Your task to perform on an android device: toggle improve location accuracy Image 0: 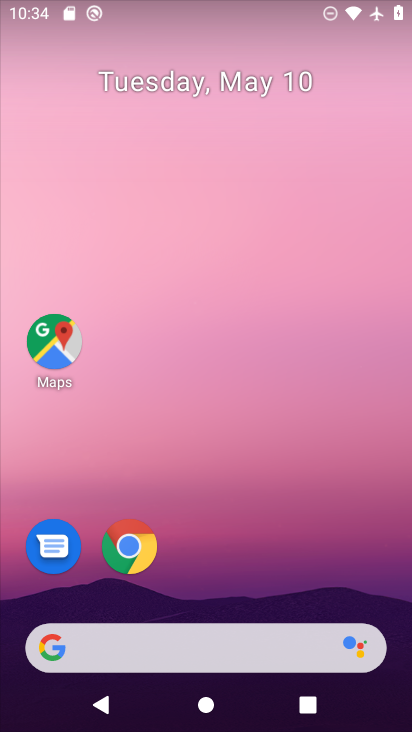
Step 0: drag from (348, 573) to (339, 55)
Your task to perform on an android device: toggle improve location accuracy Image 1: 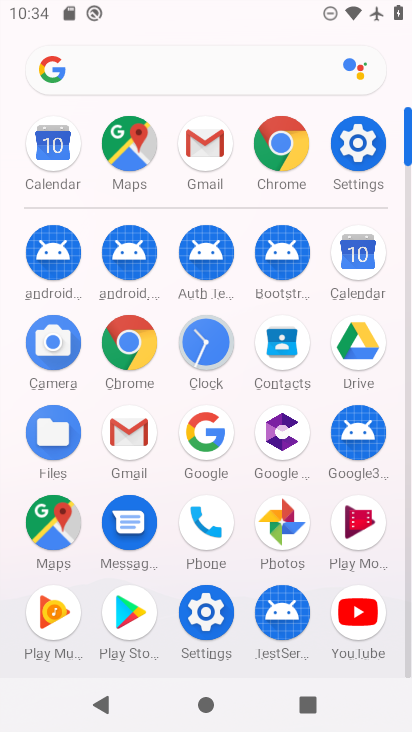
Step 1: click (365, 147)
Your task to perform on an android device: toggle improve location accuracy Image 2: 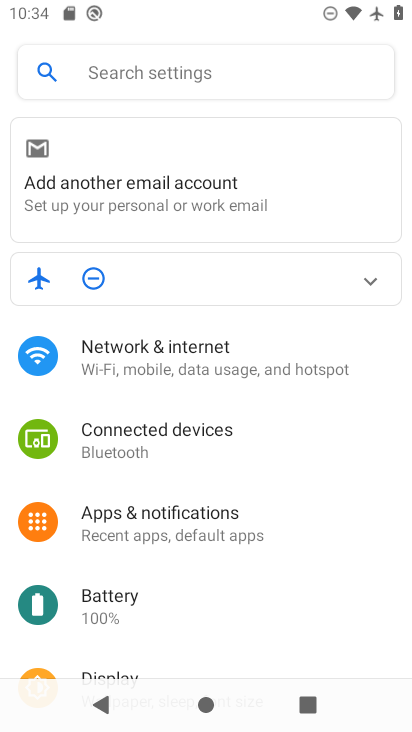
Step 2: drag from (226, 622) to (340, 193)
Your task to perform on an android device: toggle improve location accuracy Image 3: 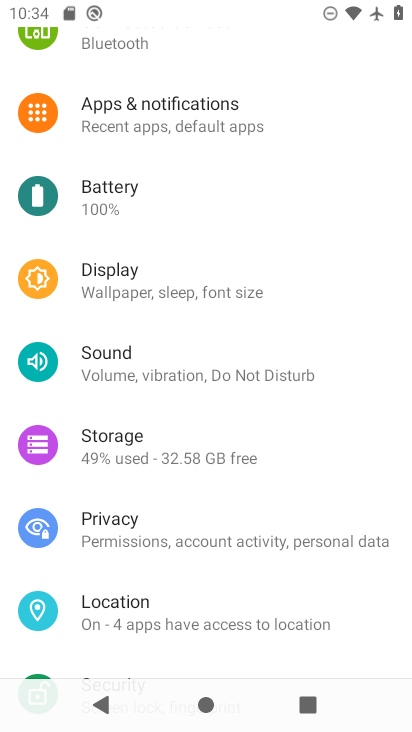
Step 3: drag from (194, 525) to (226, 315)
Your task to perform on an android device: toggle improve location accuracy Image 4: 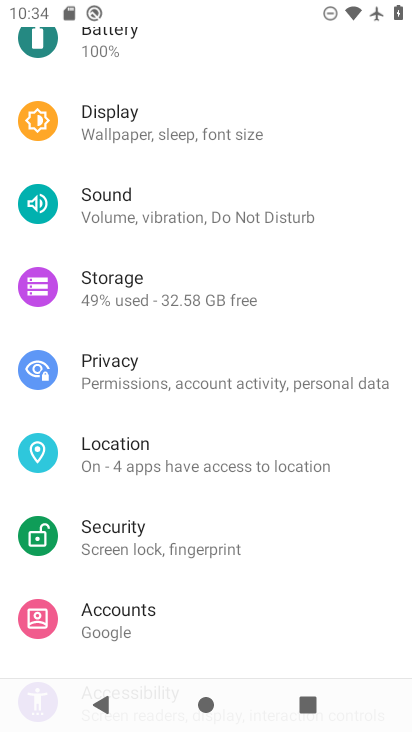
Step 4: click (139, 469)
Your task to perform on an android device: toggle improve location accuracy Image 5: 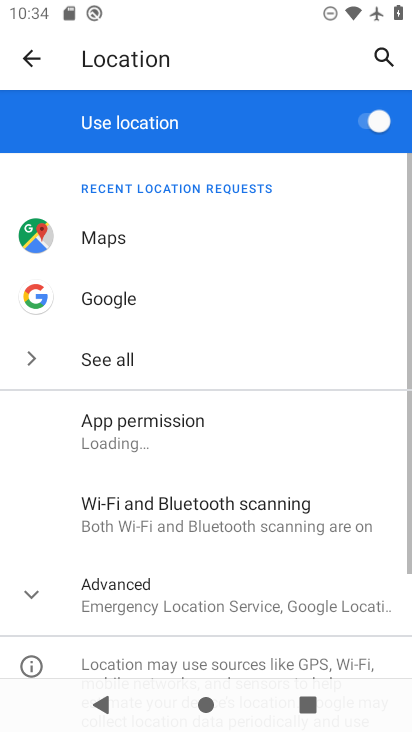
Step 5: drag from (301, 517) to (365, 154)
Your task to perform on an android device: toggle improve location accuracy Image 6: 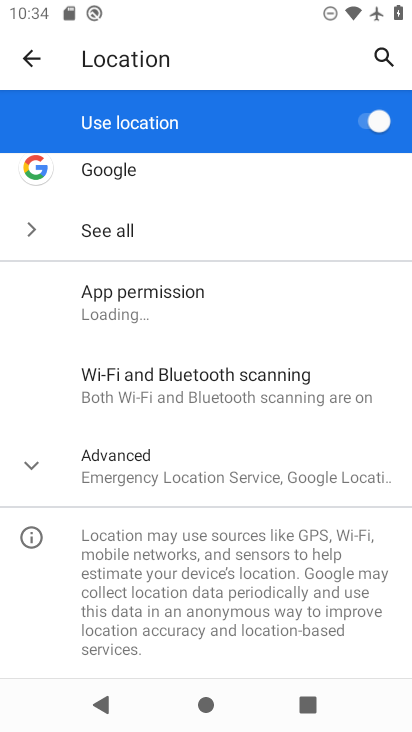
Step 6: click (225, 466)
Your task to perform on an android device: toggle improve location accuracy Image 7: 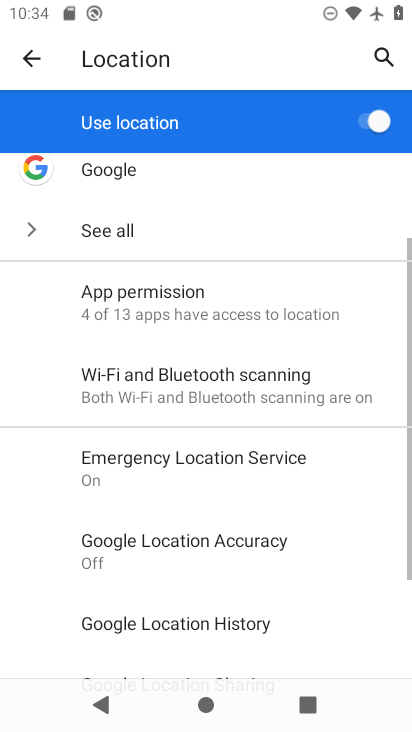
Step 7: drag from (347, 548) to (345, 192)
Your task to perform on an android device: toggle improve location accuracy Image 8: 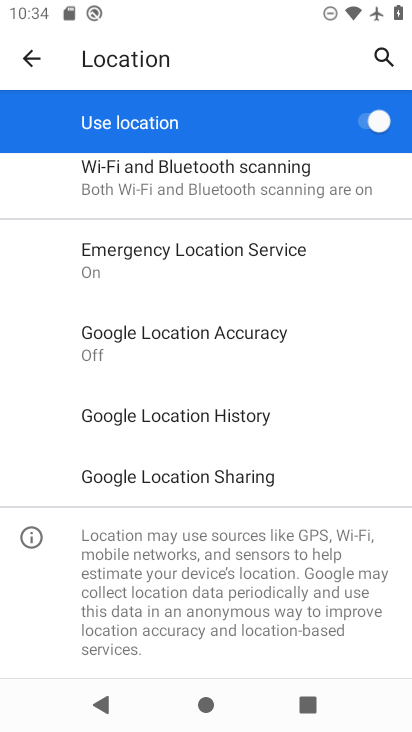
Step 8: click (253, 336)
Your task to perform on an android device: toggle improve location accuracy Image 9: 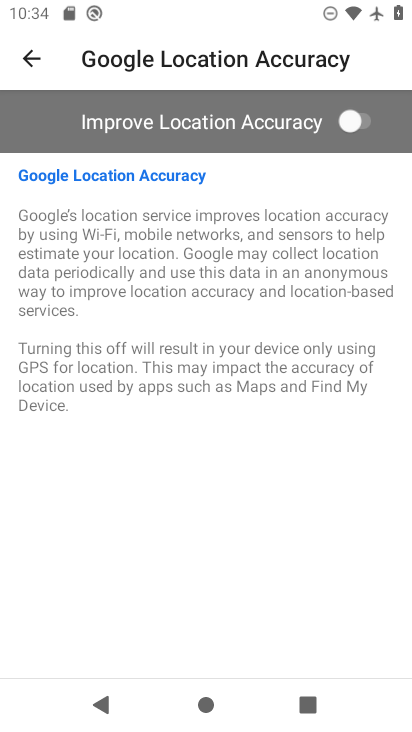
Step 9: click (343, 117)
Your task to perform on an android device: toggle improve location accuracy Image 10: 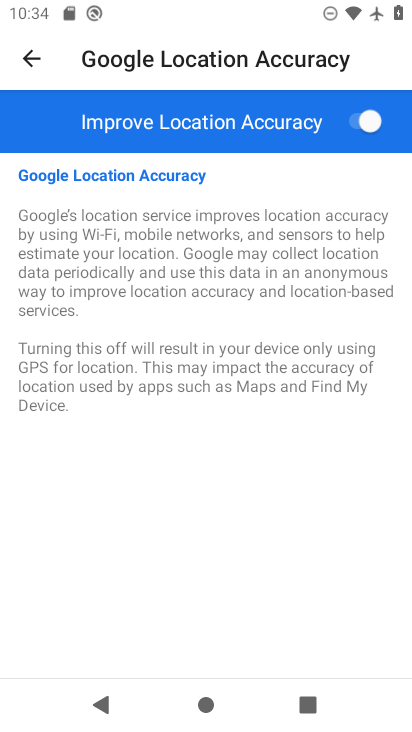
Step 10: task complete